Your task to perform on an android device: open a new tab in the chrome app Image 0: 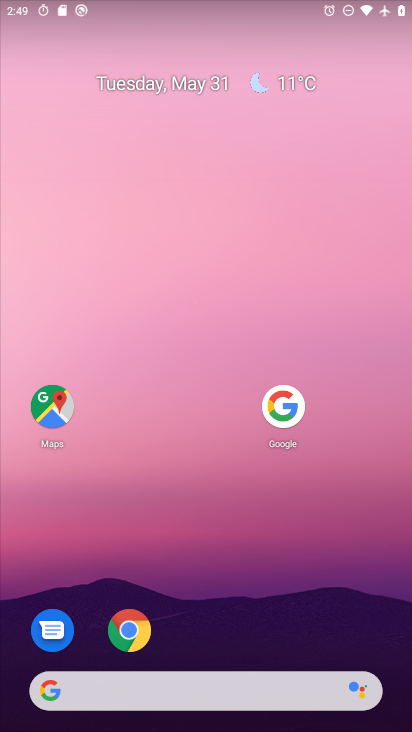
Step 0: press home button
Your task to perform on an android device: open a new tab in the chrome app Image 1: 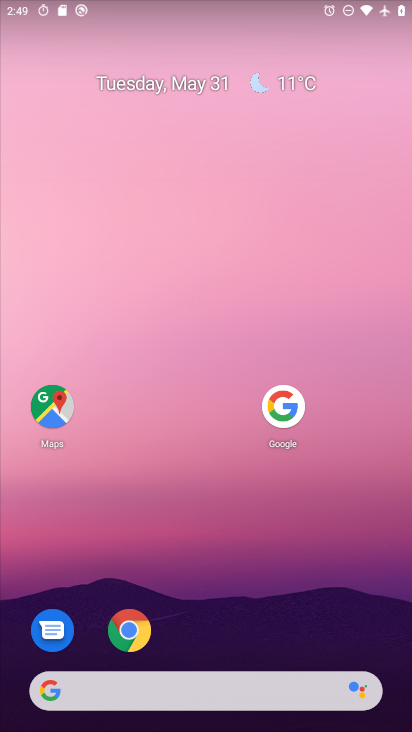
Step 1: click (134, 633)
Your task to perform on an android device: open a new tab in the chrome app Image 2: 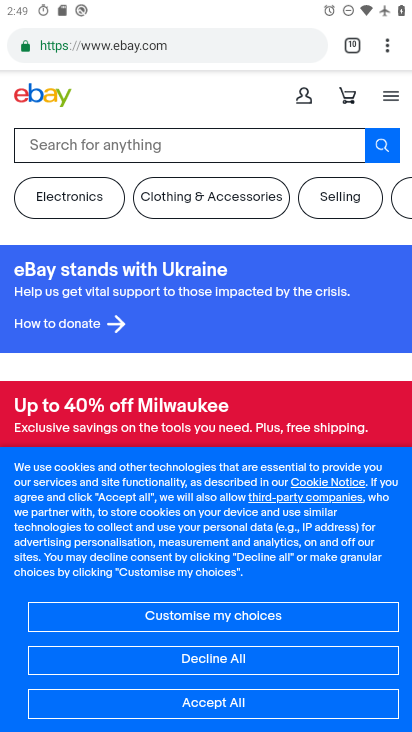
Step 2: task complete